Your task to perform on an android device: turn off improve location accuracy Image 0: 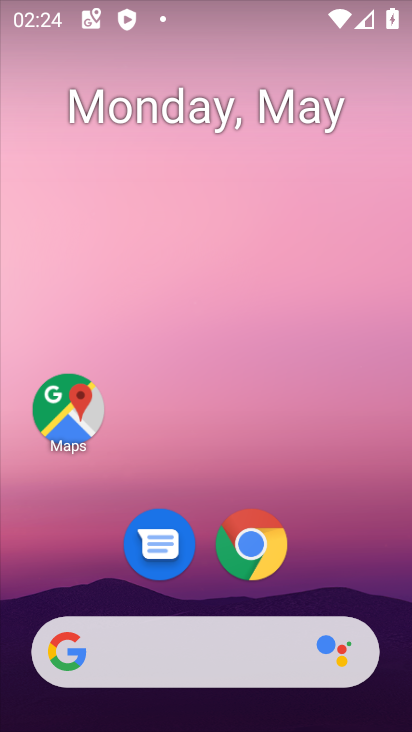
Step 0: drag from (373, 594) to (371, 269)
Your task to perform on an android device: turn off improve location accuracy Image 1: 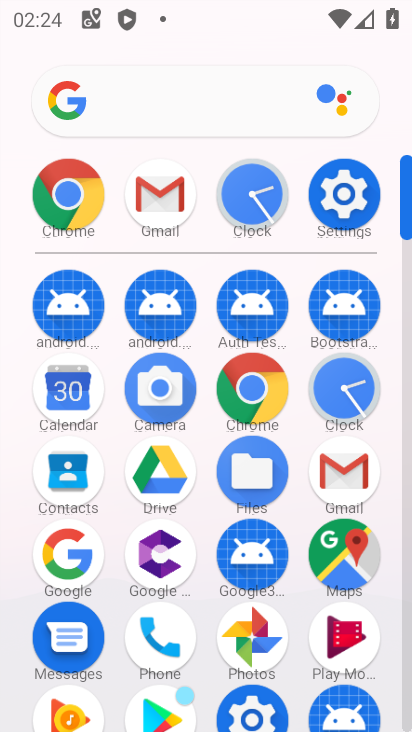
Step 1: click (353, 215)
Your task to perform on an android device: turn off improve location accuracy Image 2: 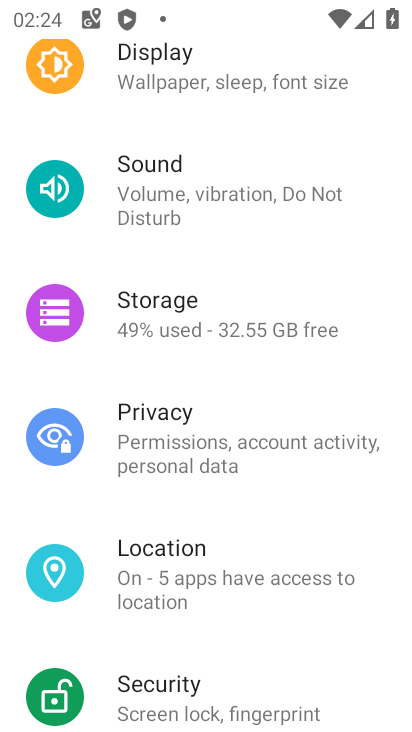
Step 2: drag from (378, 167) to (379, 268)
Your task to perform on an android device: turn off improve location accuracy Image 3: 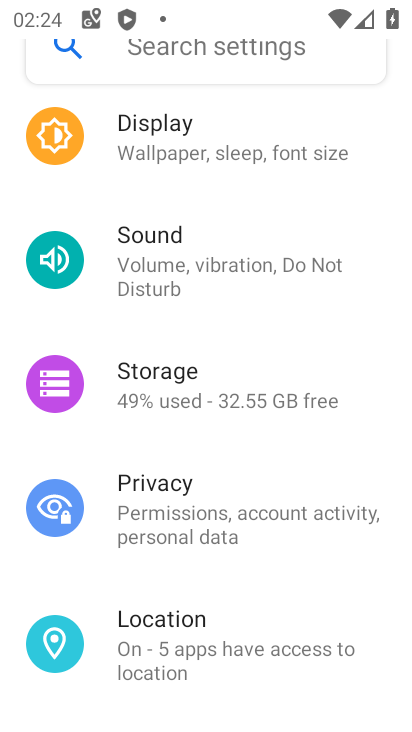
Step 3: drag from (366, 139) to (366, 248)
Your task to perform on an android device: turn off improve location accuracy Image 4: 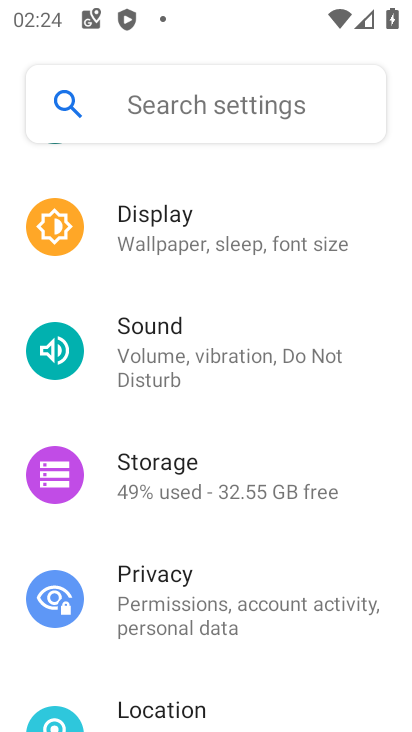
Step 4: drag from (379, 178) to (365, 311)
Your task to perform on an android device: turn off improve location accuracy Image 5: 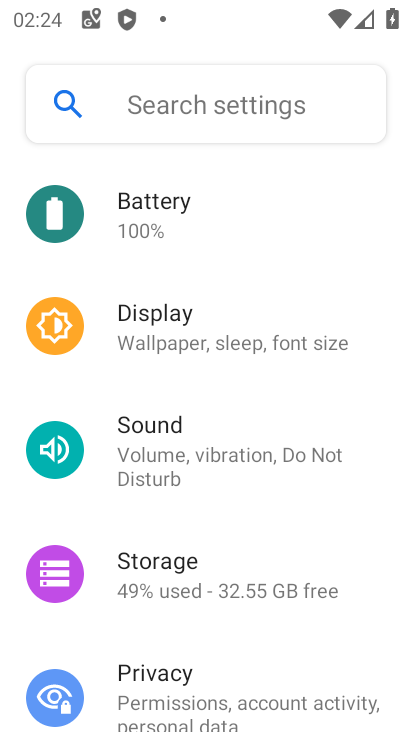
Step 5: drag from (371, 184) to (360, 305)
Your task to perform on an android device: turn off improve location accuracy Image 6: 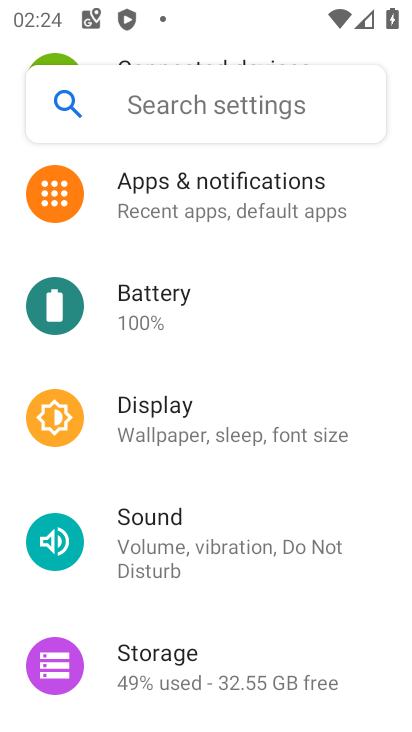
Step 6: drag from (361, 175) to (350, 335)
Your task to perform on an android device: turn off improve location accuracy Image 7: 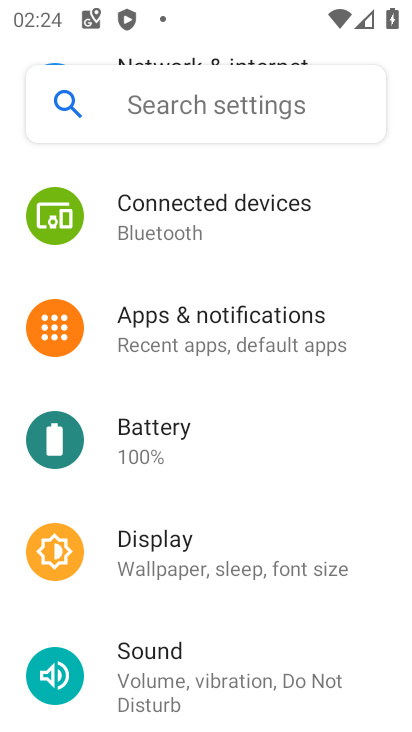
Step 7: drag from (350, 182) to (354, 337)
Your task to perform on an android device: turn off improve location accuracy Image 8: 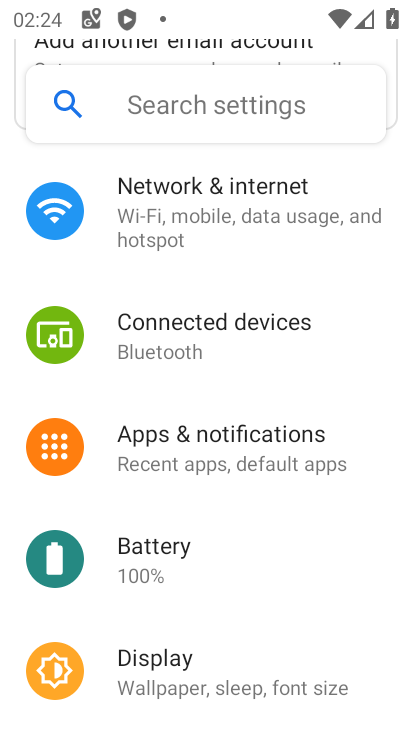
Step 8: drag from (358, 184) to (353, 345)
Your task to perform on an android device: turn off improve location accuracy Image 9: 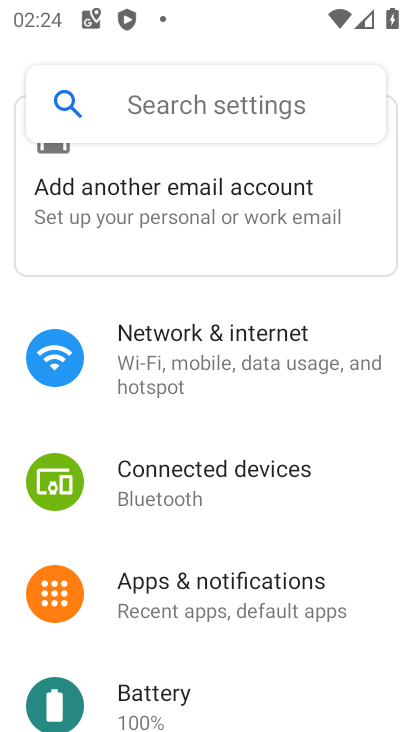
Step 9: drag from (354, 370) to (366, 209)
Your task to perform on an android device: turn off improve location accuracy Image 10: 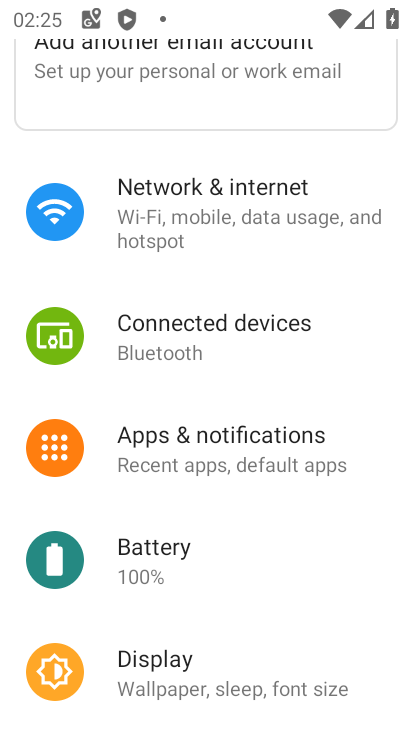
Step 10: drag from (368, 362) to (362, 150)
Your task to perform on an android device: turn off improve location accuracy Image 11: 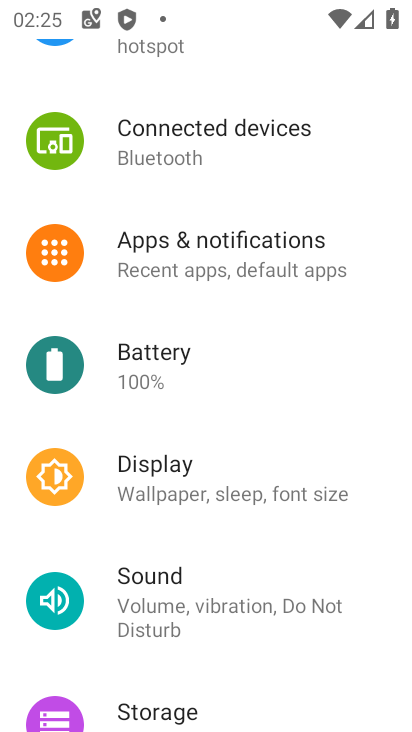
Step 11: drag from (345, 376) to (349, 239)
Your task to perform on an android device: turn off improve location accuracy Image 12: 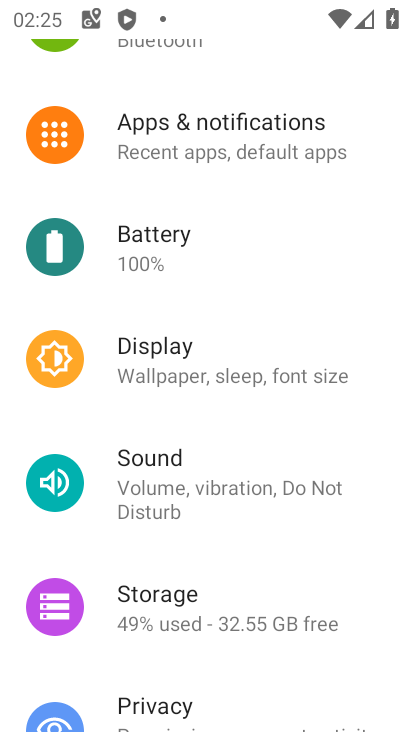
Step 12: drag from (338, 426) to (345, 193)
Your task to perform on an android device: turn off improve location accuracy Image 13: 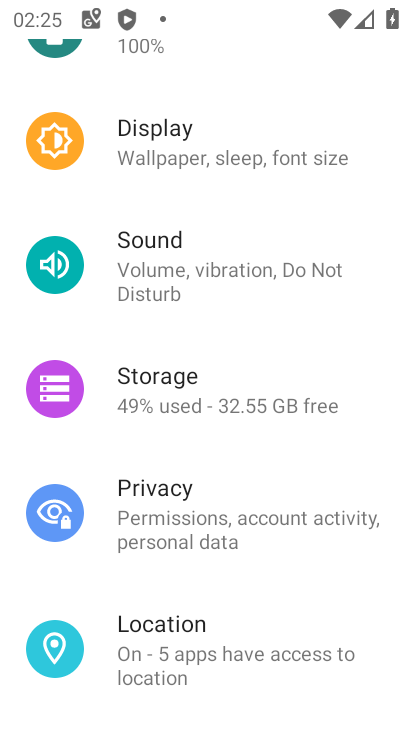
Step 13: drag from (313, 469) to (309, 313)
Your task to perform on an android device: turn off improve location accuracy Image 14: 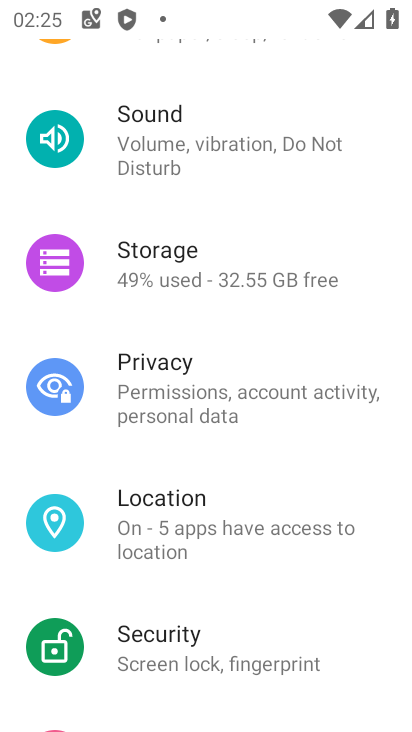
Step 14: click (267, 523)
Your task to perform on an android device: turn off improve location accuracy Image 15: 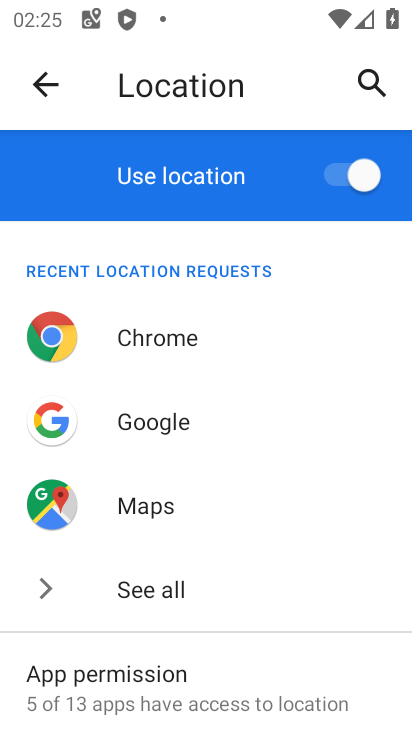
Step 15: drag from (274, 563) to (277, 314)
Your task to perform on an android device: turn off improve location accuracy Image 16: 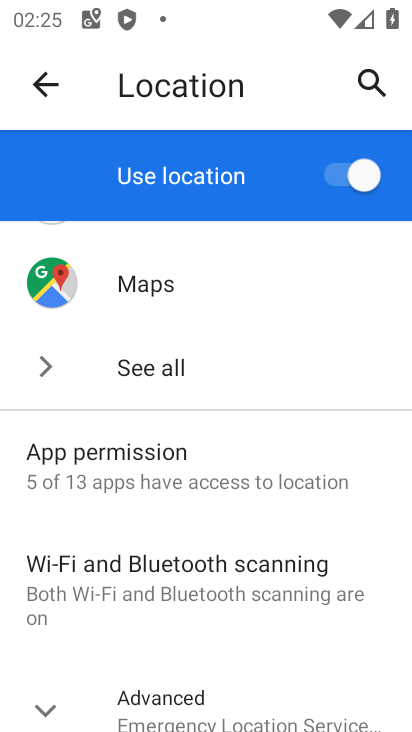
Step 16: drag from (274, 553) to (269, 373)
Your task to perform on an android device: turn off improve location accuracy Image 17: 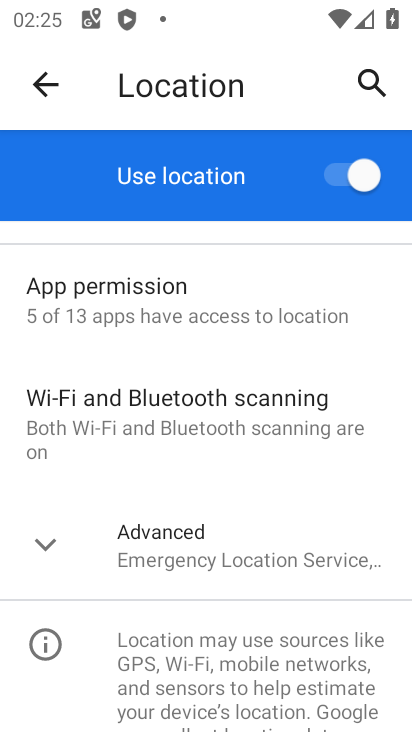
Step 17: click (254, 554)
Your task to perform on an android device: turn off improve location accuracy Image 18: 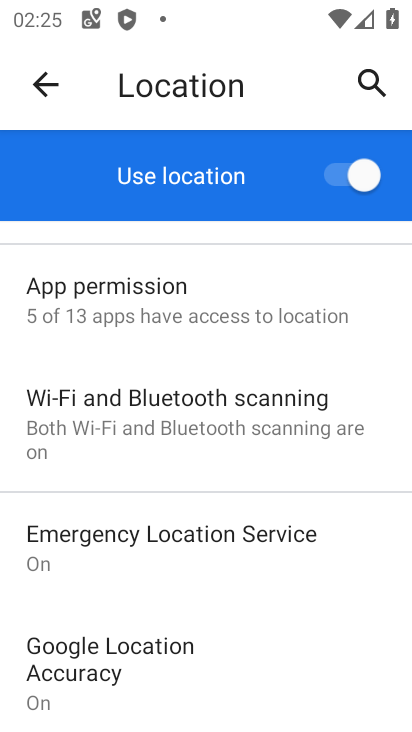
Step 18: drag from (235, 627) to (231, 422)
Your task to perform on an android device: turn off improve location accuracy Image 19: 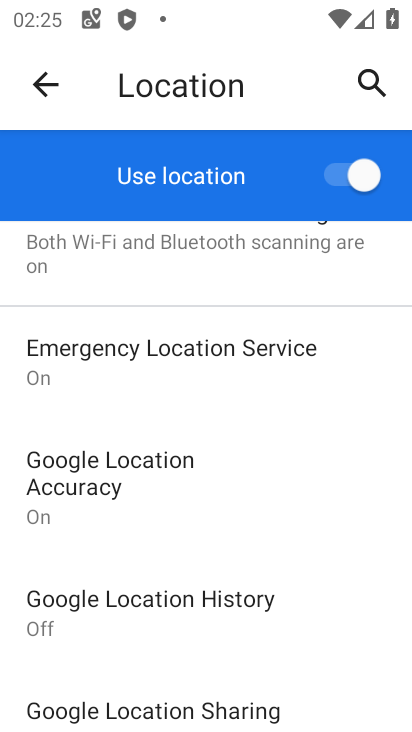
Step 19: drag from (258, 658) to (262, 449)
Your task to perform on an android device: turn off improve location accuracy Image 20: 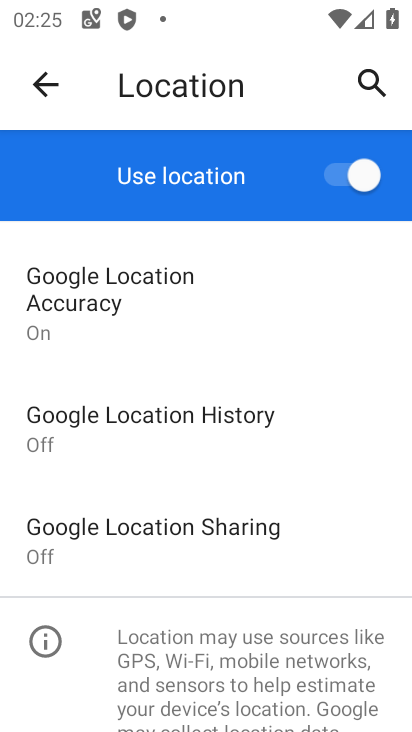
Step 20: drag from (252, 630) to (257, 475)
Your task to perform on an android device: turn off improve location accuracy Image 21: 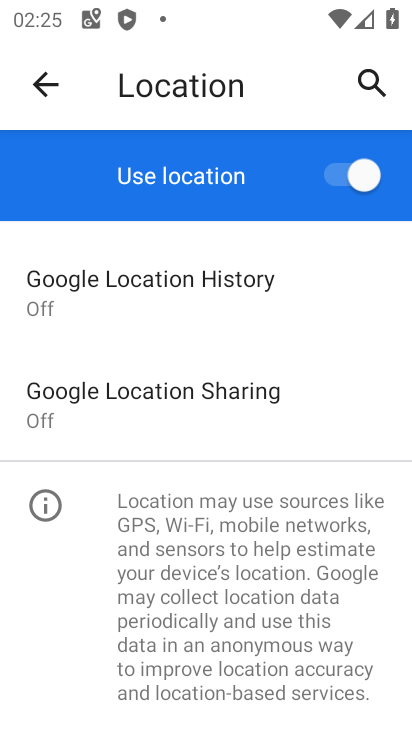
Step 21: drag from (297, 276) to (289, 471)
Your task to perform on an android device: turn off improve location accuracy Image 22: 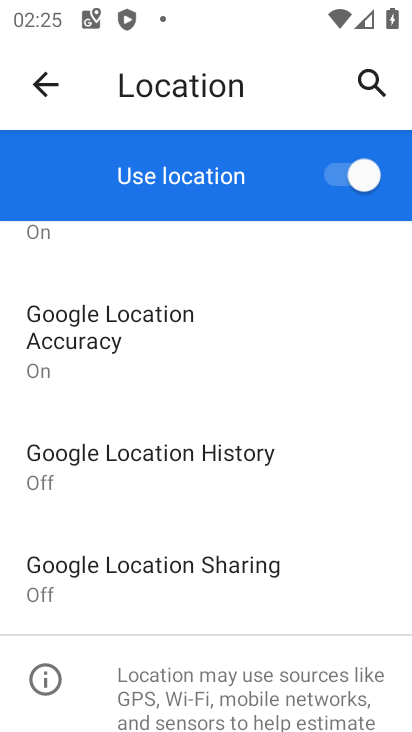
Step 22: drag from (300, 261) to (297, 421)
Your task to perform on an android device: turn off improve location accuracy Image 23: 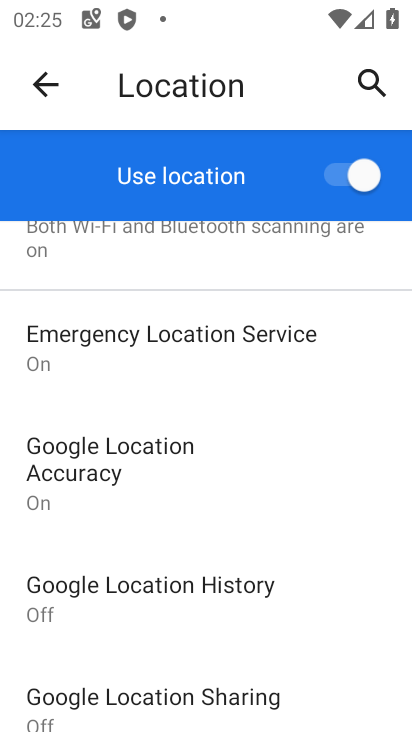
Step 23: click (93, 497)
Your task to perform on an android device: turn off improve location accuracy Image 24: 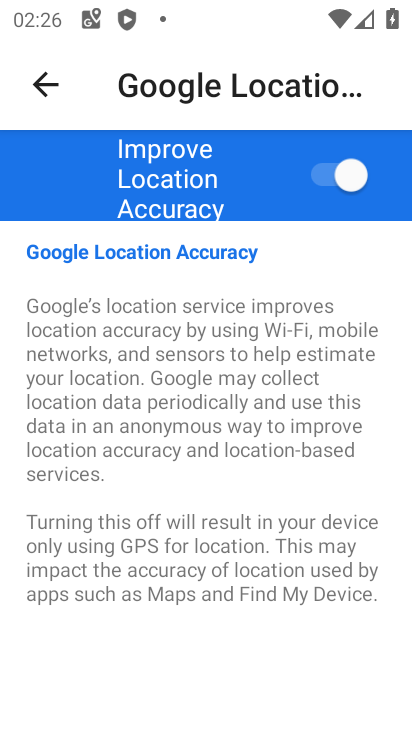
Step 24: click (345, 157)
Your task to perform on an android device: turn off improve location accuracy Image 25: 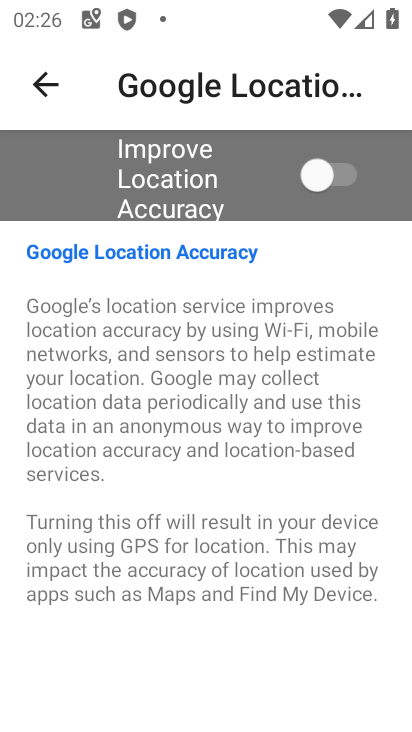
Step 25: task complete